Your task to perform on an android device: Open Chrome and go to the settings page Image 0: 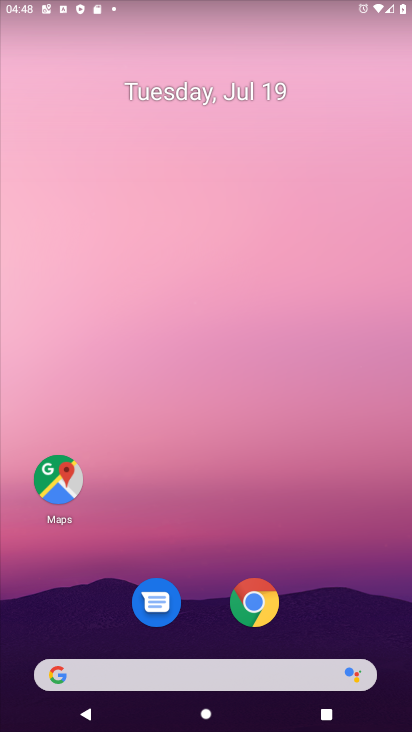
Step 0: click (256, 601)
Your task to perform on an android device: Open Chrome and go to the settings page Image 1: 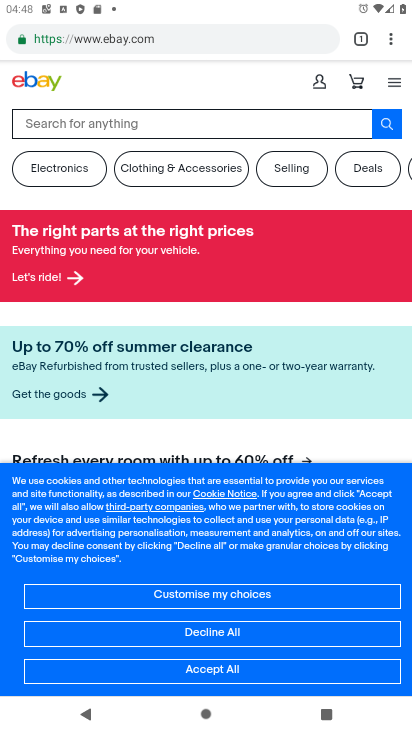
Step 1: click (383, 41)
Your task to perform on an android device: Open Chrome and go to the settings page Image 2: 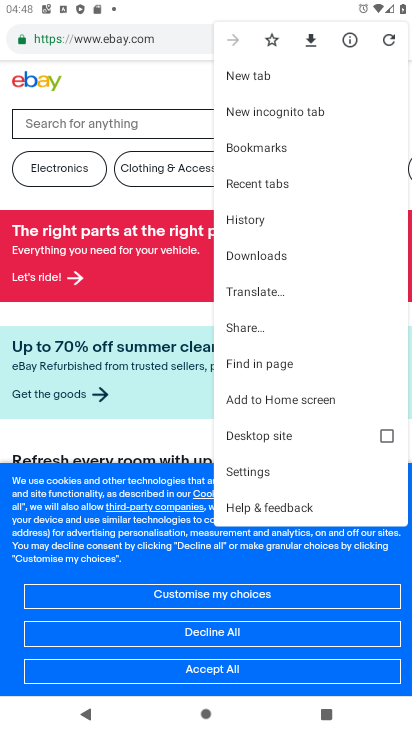
Step 2: click (229, 468)
Your task to perform on an android device: Open Chrome and go to the settings page Image 3: 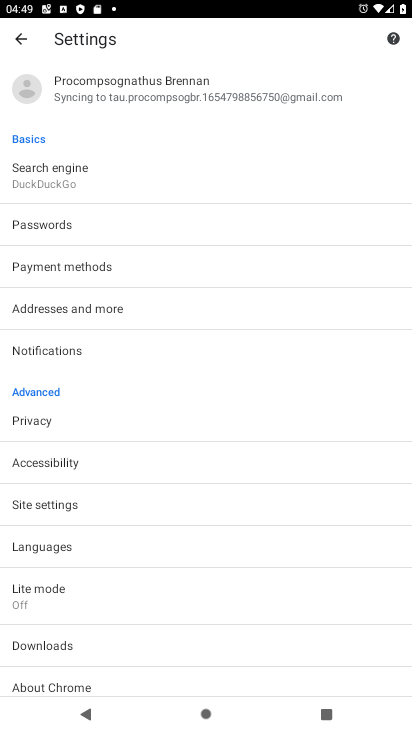
Step 3: task complete